Your task to perform on an android device: open device folders in google photos Image 0: 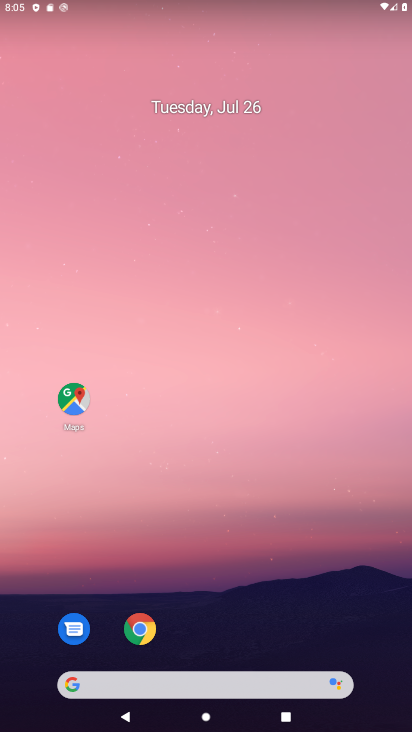
Step 0: click (197, 625)
Your task to perform on an android device: open device folders in google photos Image 1: 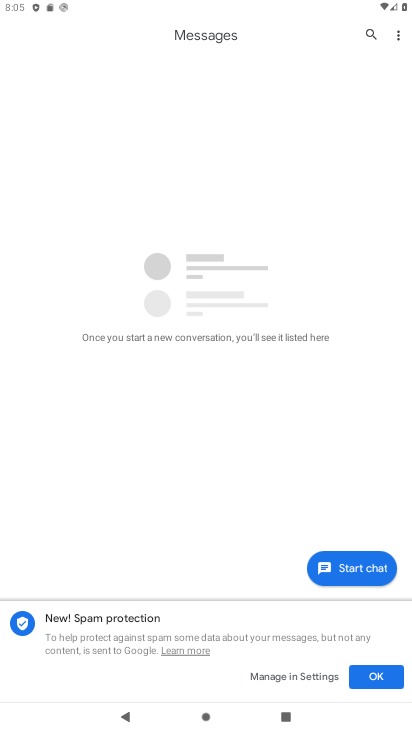
Step 1: press home button
Your task to perform on an android device: open device folders in google photos Image 2: 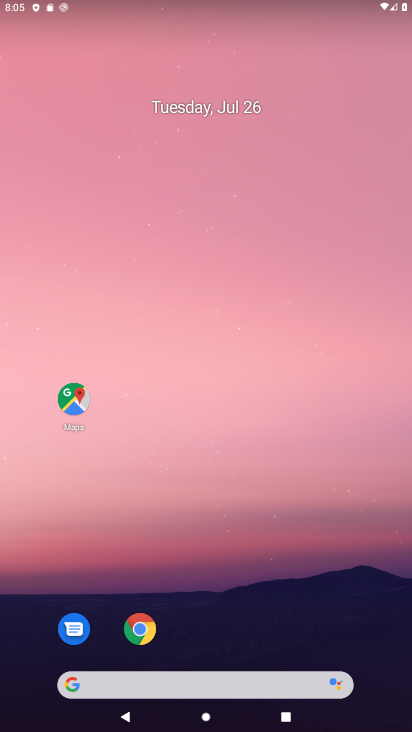
Step 2: drag from (218, 660) to (216, 120)
Your task to perform on an android device: open device folders in google photos Image 3: 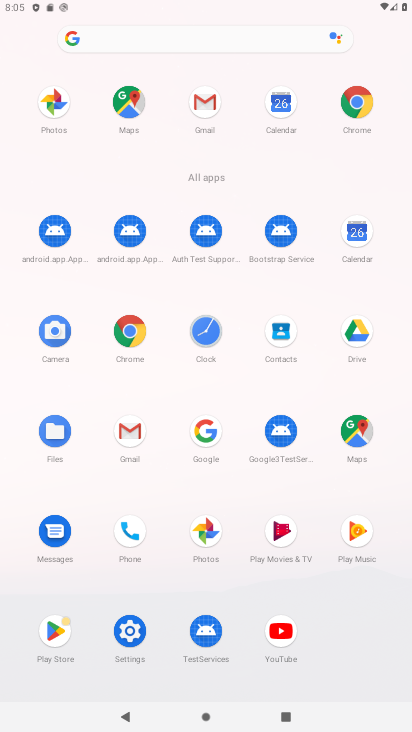
Step 3: click (209, 536)
Your task to perform on an android device: open device folders in google photos Image 4: 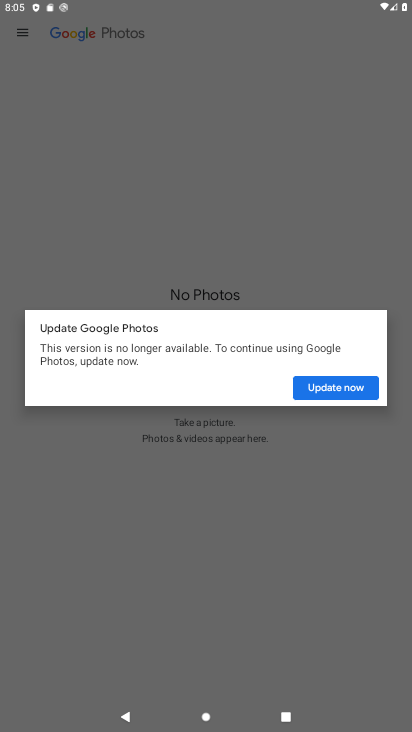
Step 4: click (326, 397)
Your task to perform on an android device: open device folders in google photos Image 5: 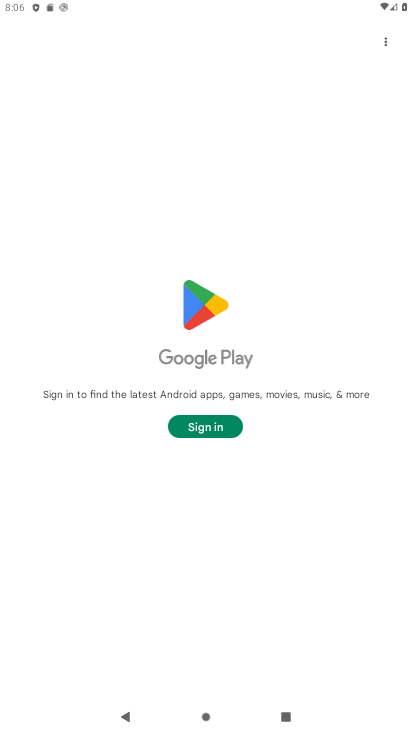
Step 5: task complete